Your task to perform on an android device: Go to calendar. Show me events next week Image 0: 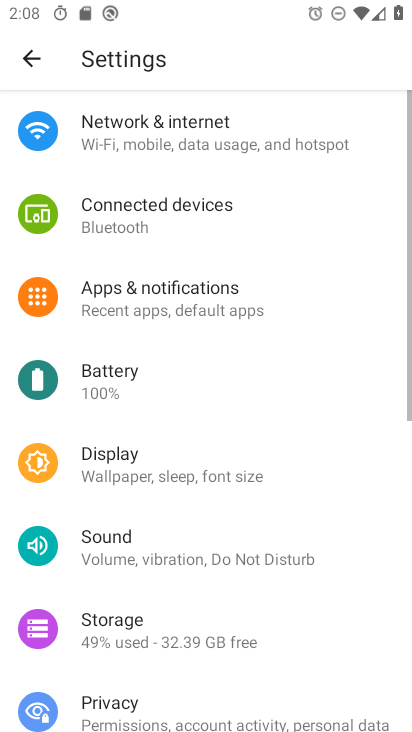
Step 0: press home button
Your task to perform on an android device: Go to calendar. Show me events next week Image 1: 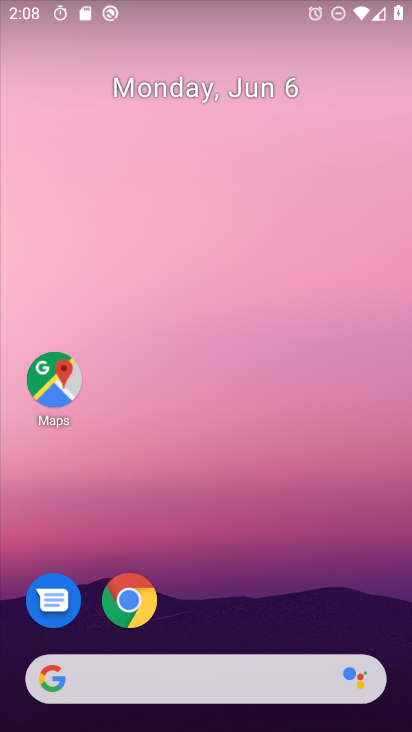
Step 1: drag from (206, 613) to (200, 212)
Your task to perform on an android device: Go to calendar. Show me events next week Image 2: 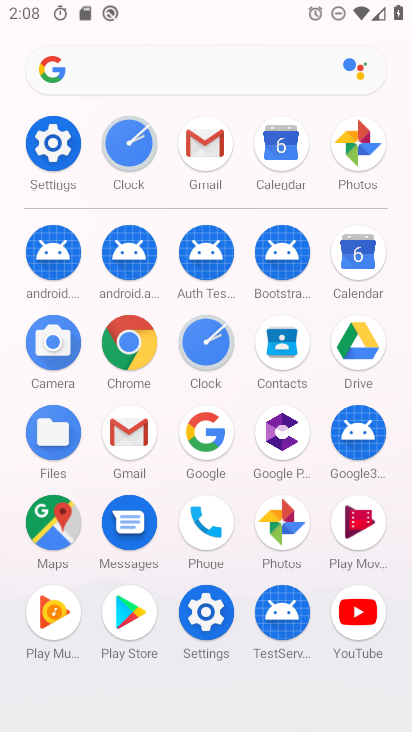
Step 2: click (351, 270)
Your task to perform on an android device: Go to calendar. Show me events next week Image 3: 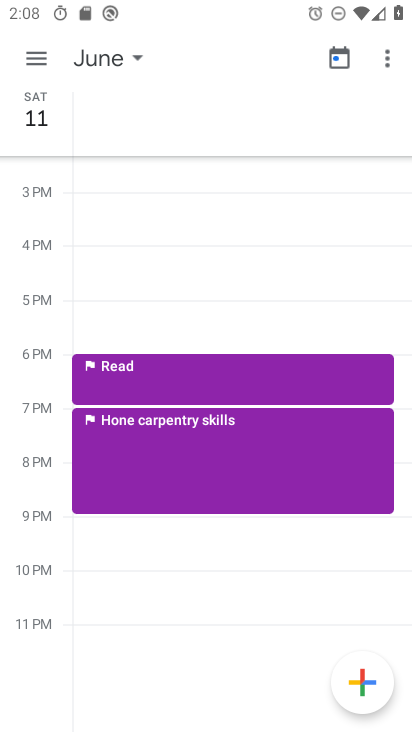
Step 3: click (115, 58)
Your task to perform on an android device: Go to calendar. Show me events next week Image 4: 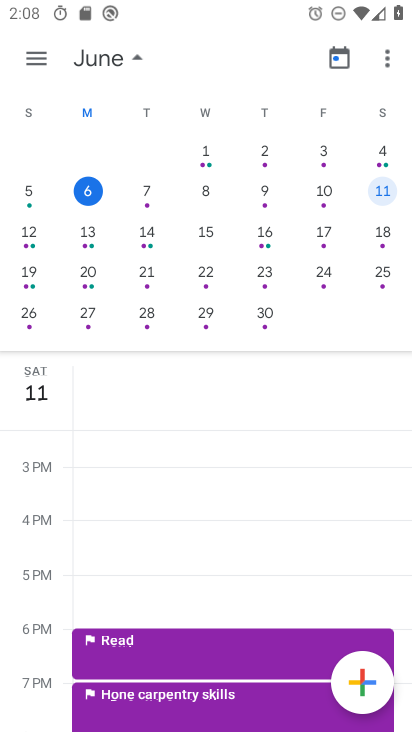
Step 4: click (25, 233)
Your task to perform on an android device: Go to calendar. Show me events next week Image 5: 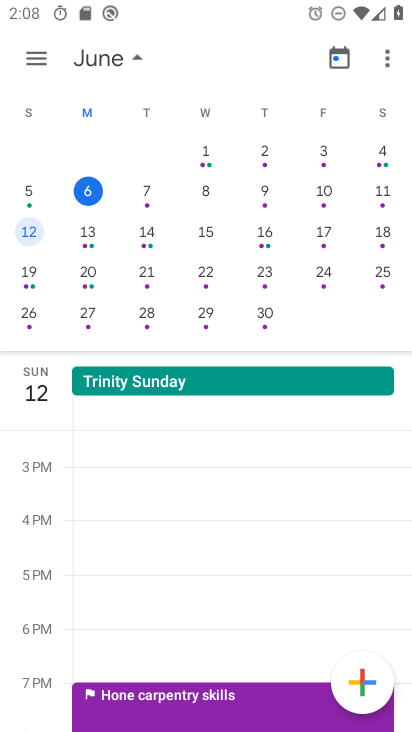
Step 5: click (84, 242)
Your task to perform on an android device: Go to calendar. Show me events next week Image 6: 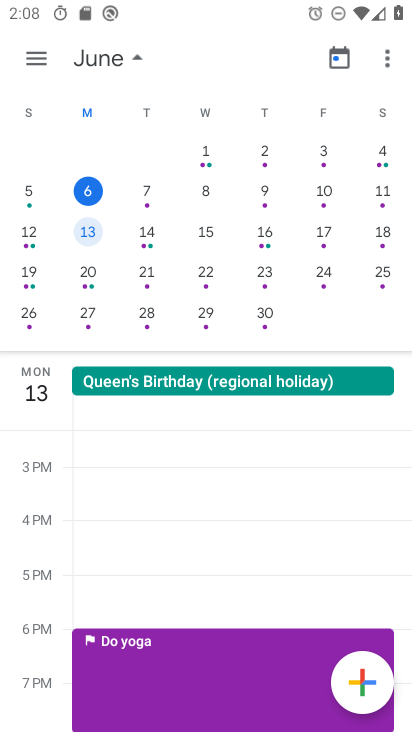
Step 6: click (33, 239)
Your task to perform on an android device: Go to calendar. Show me events next week Image 7: 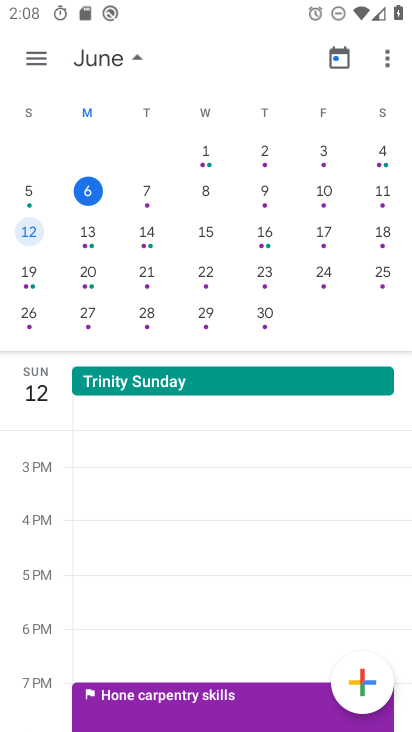
Step 7: click (85, 226)
Your task to perform on an android device: Go to calendar. Show me events next week Image 8: 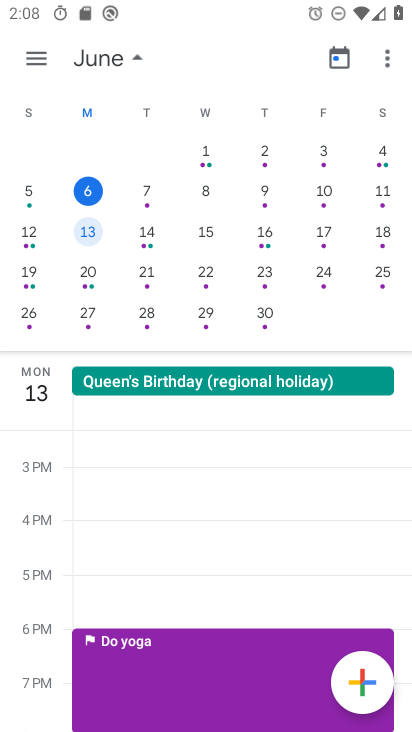
Step 8: task complete